Your task to perform on an android device: toggle priority inbox in the gmail app Image 0: 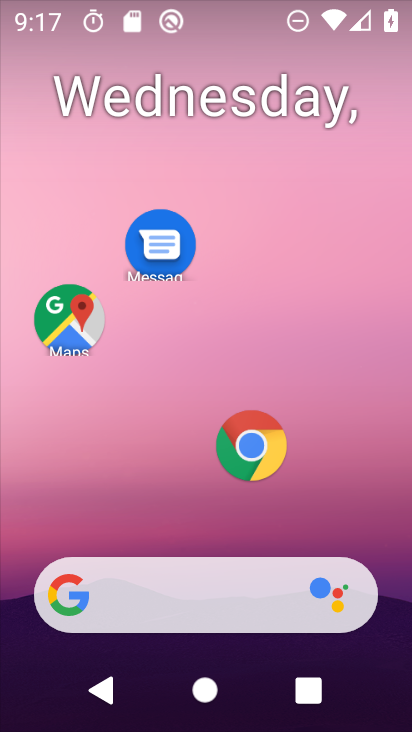
Step 0: drag from (218, 165) to (226, 93)
Your task to perform on an android device: toggle priority inbox in the gmail app Image 1: 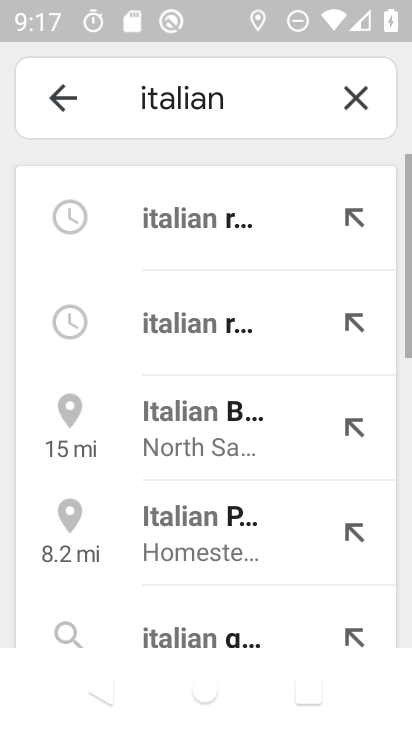
Step 1: press home button
Your task to perform on an android device: toggle priority inbox in the gmail app Image 2: 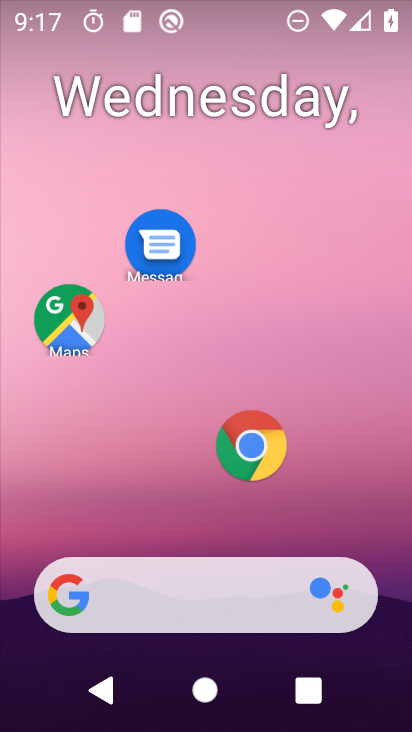
Step 2: drag from (209, 530) to (208, 108)
Your task to perform on an android device: toggle priority inbox in the gmail app Image 3: 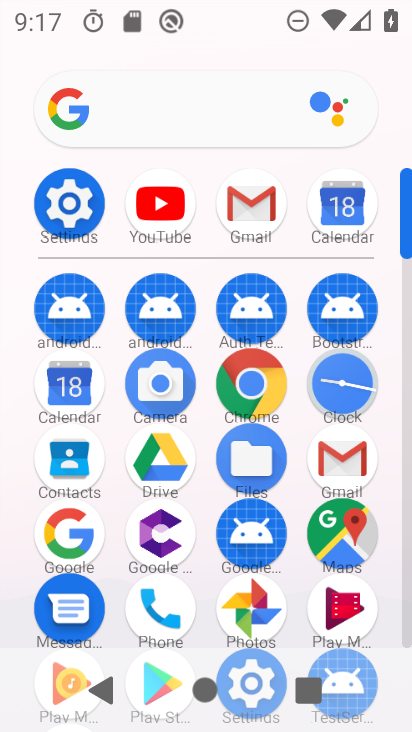
Step 3: click (246, 196)
Your task to perform on an android device: toggle priority inbox in the gmail app Image 4: 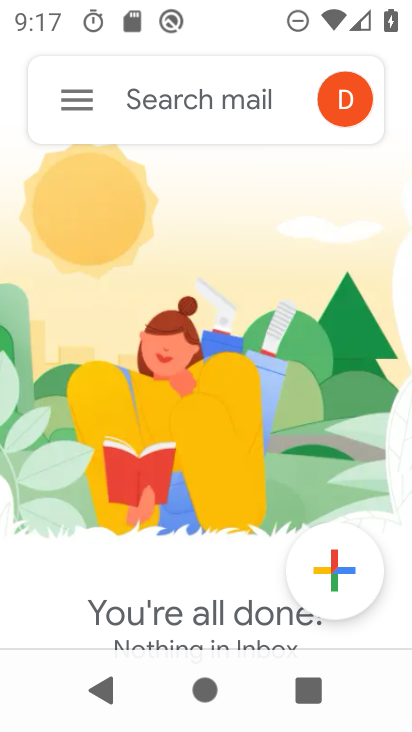
Step 4: click (80, 95)
Your task to perform on an android device: toggle priority inbox in the gmail app Image 5: 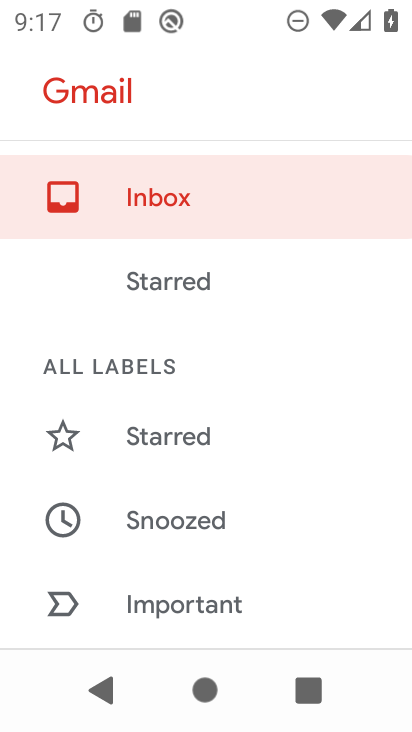
Step 5: drag from (133, 580) to (148, 77)
Your task to perform on an android device: toggle priority inbox in the gmail app Image 6: 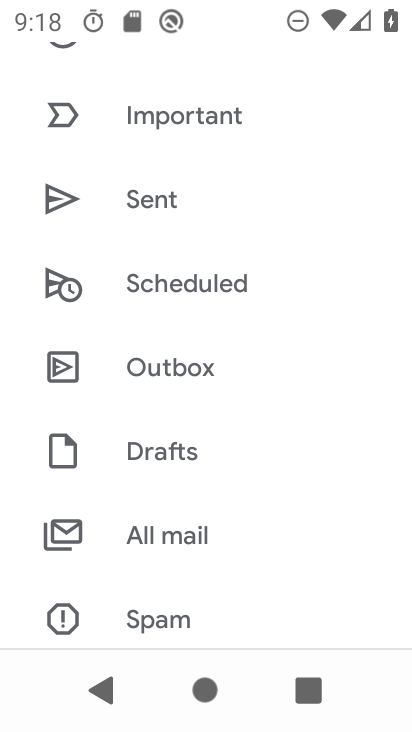
Step 6: drag from (130, 607) to (121, 196)
Your task to perform on an android device: toggle priority inbox in the gmail app Image 7: 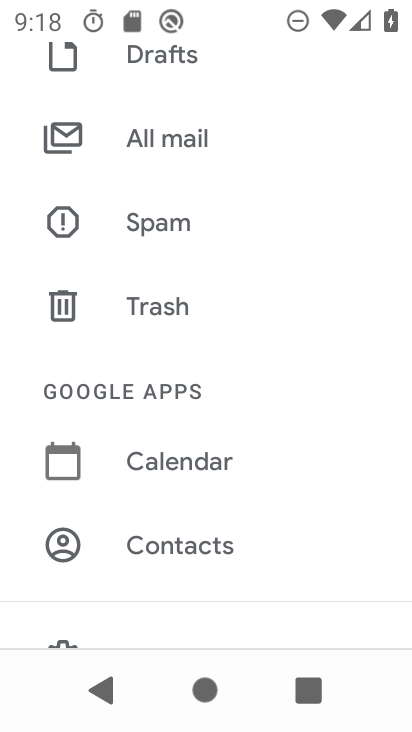
Step 7: drag from (128, 569) to (125, 240)
Your task to perform on an android device: toggle priority inbox in the gmail app Image 8: 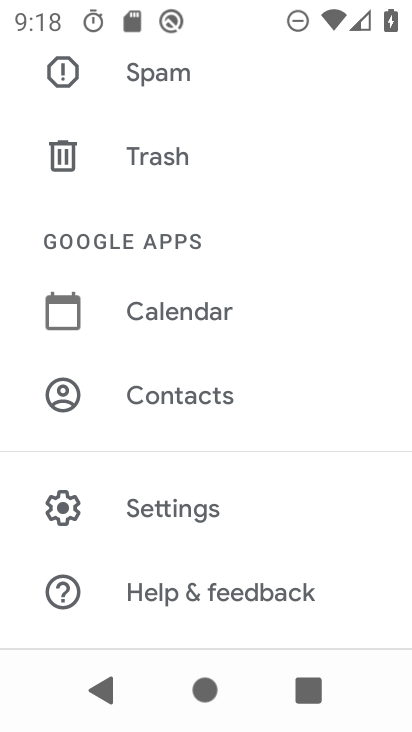
Step 8: click (111, 505)
Your task to perform on an android device: toggle priority inbox in the gmail app Image 9: 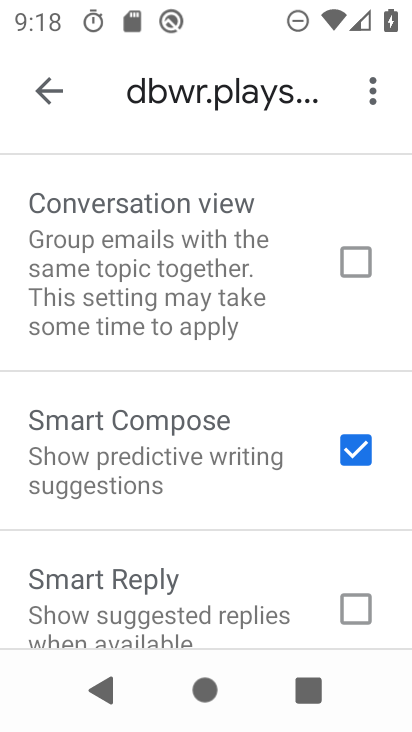
Step 9: drag from (143, 248) to (174, 731)
Your task to perform on an android device: toggle priority inbox in the gmail app Image 10: 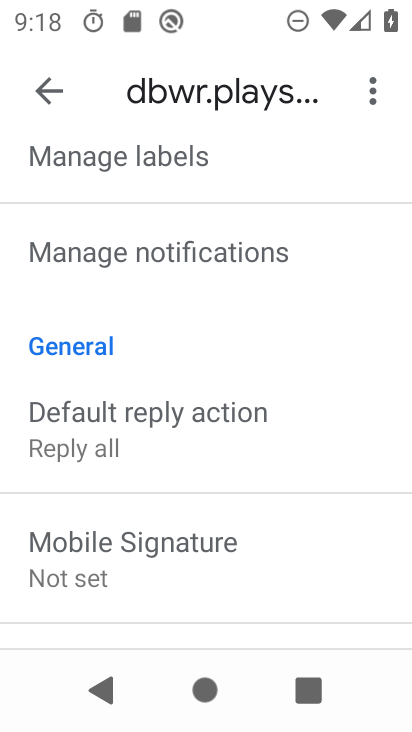
Step 10: drag from (163, 179) to (169, 672)
Your task to perform on an android device: toggle priority inbox in the gmail app Image 11: 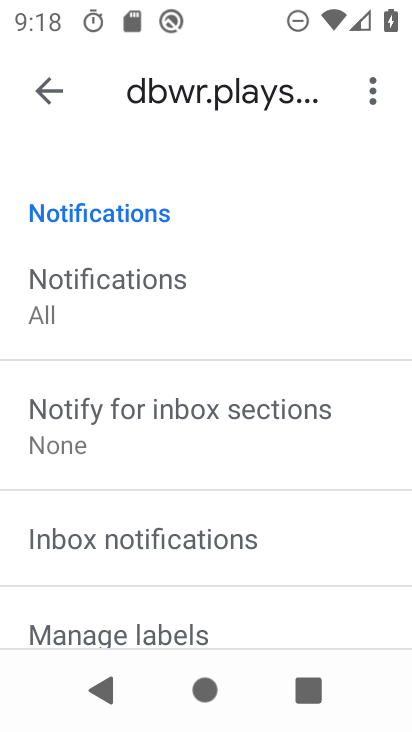
Step 11: drag from (155, 190) to (169, 731)
Your task to perform on an android device: toggle priority inbox in the gmail app Image 12: 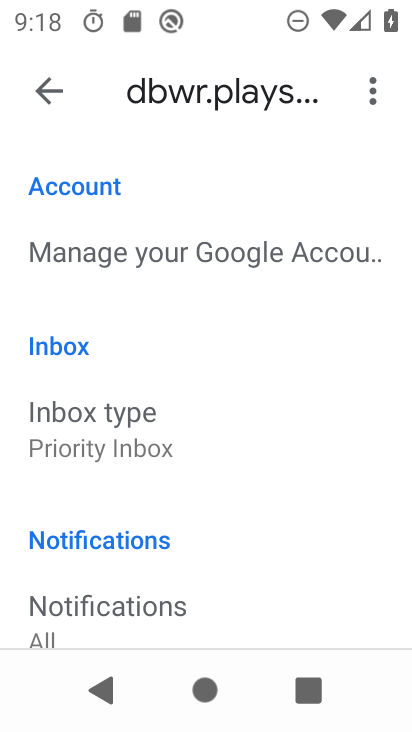
Step 12: drag from (178, 320) to (195, 612)
Your task to perform on an android device: toggle priority inbox in the gmail app Image 13: 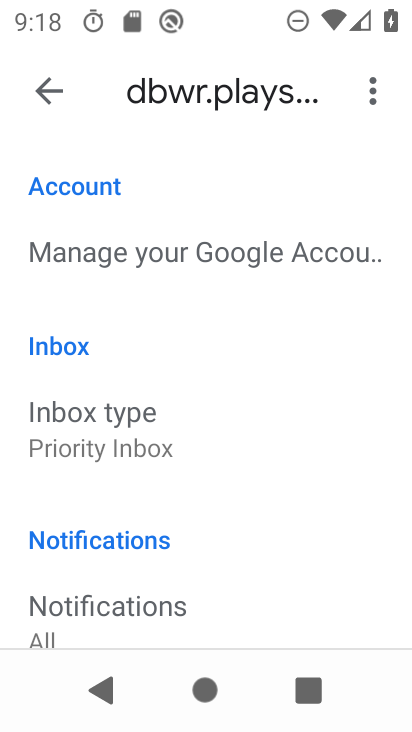
Step 13: click (176, 426)
Your task to perform on an android device: toggle priority inbox in the gmail app Image 14: 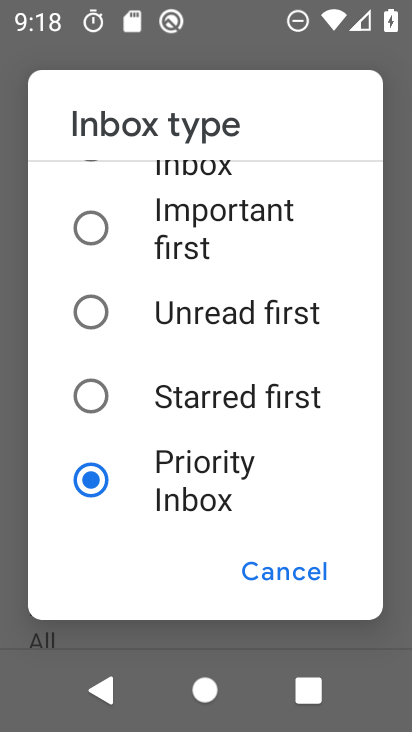
Step 14: task complete